Your task to perform on an android device: turn off wifi Image 0: 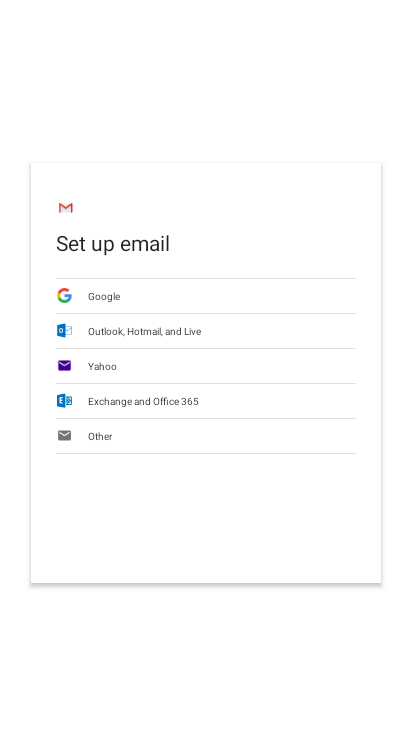
Step 0: press home button
Your task to perform on an android device: turn off wifi Image 1: 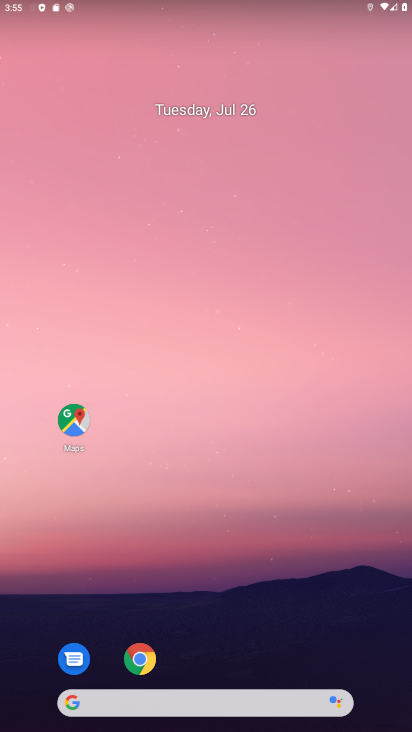
Step 1: drag from (192, 43) to (191, 570)
Your task to perform on an android device: turn off wifi Image 2: 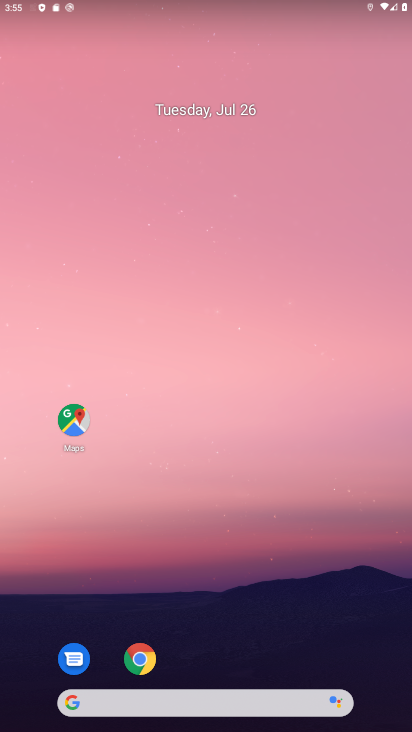
Step 2: drag from (205, 2) to (198, 459)
Your task to perform on an android device: turn off wifi Image 3: 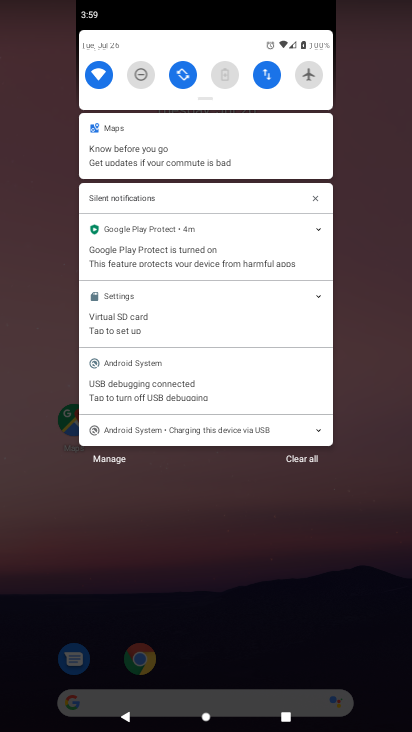
Step 3: click (102, 73)
Your task to perform on an android device: turn off wifi Image 4: 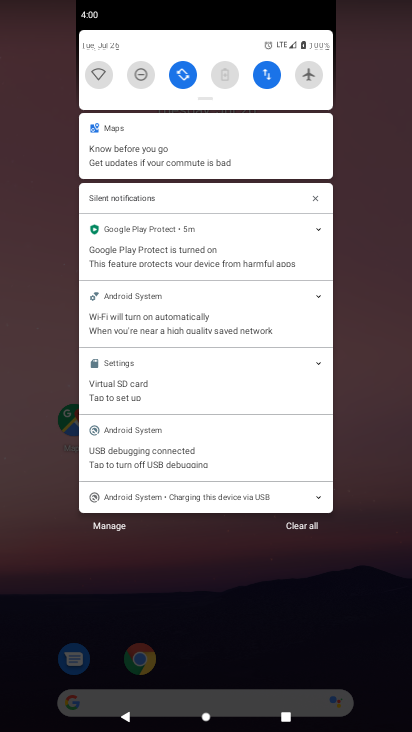
Step 4: task complete